Your task to perform on an android device: Open calendar and show me the second week of next month Image 0: 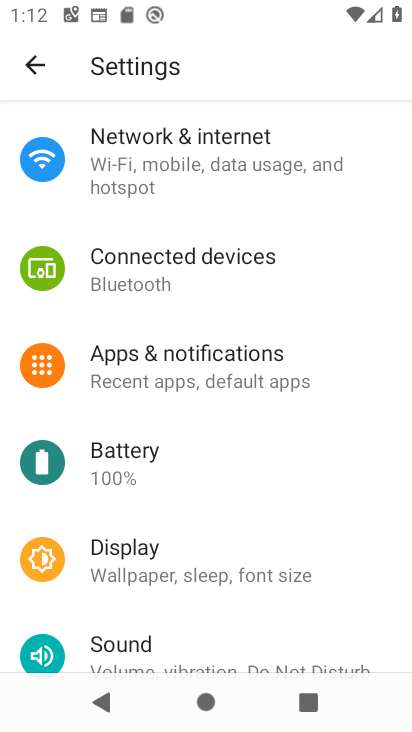
Step 0: press home button
Your task to perform on an android device: Open calendar and show me the second week of next month Image 1: 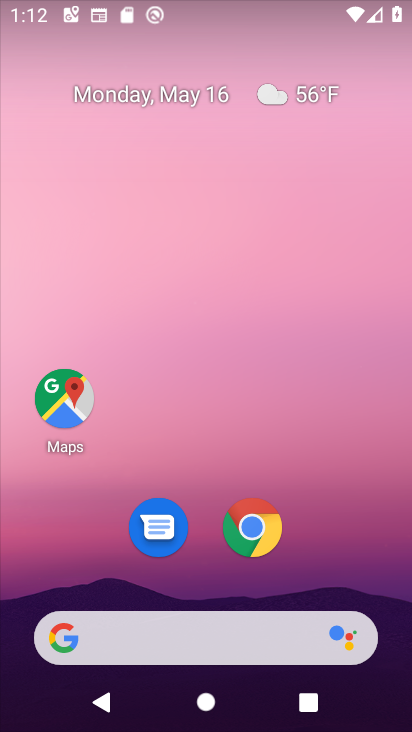
Step 1: drag from (232, 569) to (172, 143)
Your task to perform on an android device: Open calendar and show me the second week of next month Image 2: 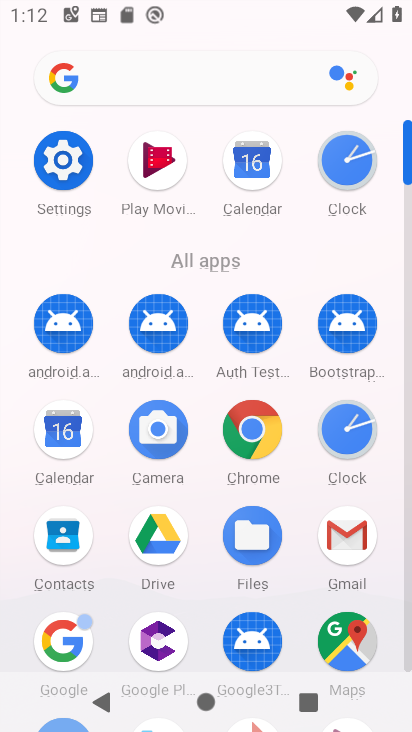
Step 2: click (72, 437)
Your task to perform on an android device: Open calendar and show me the second week of next month Image 3: 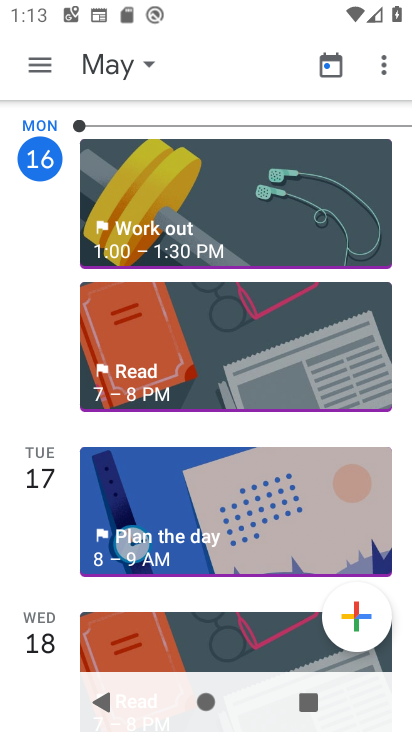
Step 3: click (43, 63)
Your task to perform on an android device: Open calendar and show me the second week of next month Image 4: 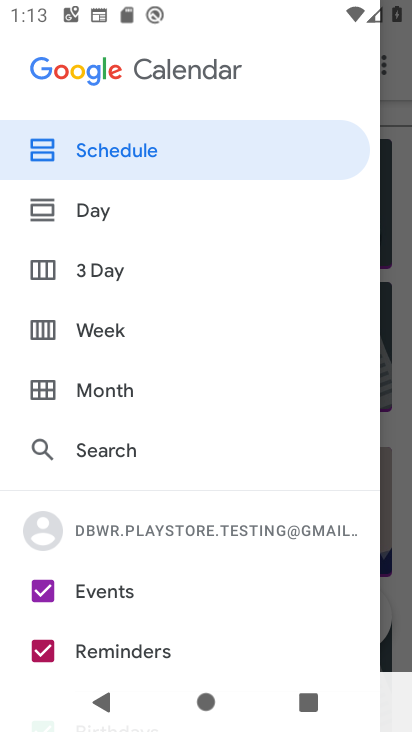
Step 4: click (147, 392)
Your task to perform on an android device: Open calendar and show me the second week of next month Image 5: 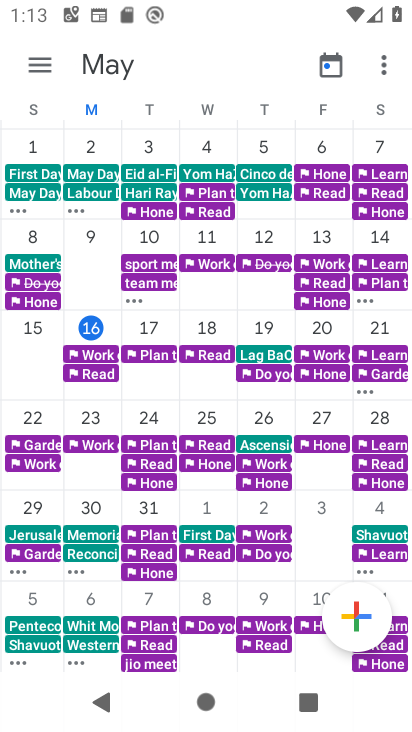
Step 5: task complete